Your task to perform on an android device: Go to Wikipedia Image 0: 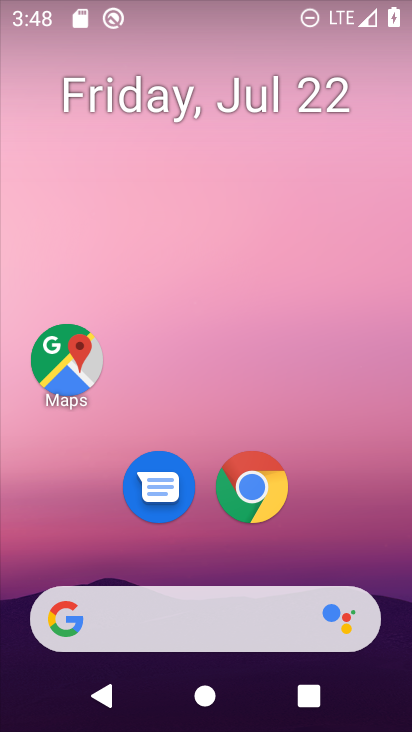
Step 0: click (264, 473)
Your task to perform on an android device: Go to Wikipedia Image 1: 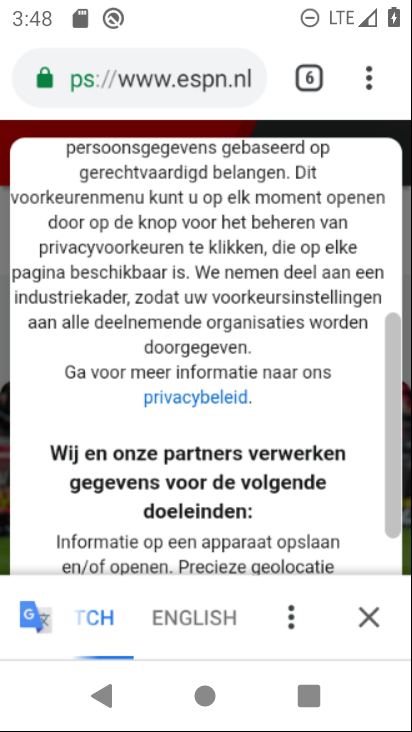
Step 1: click (307, 75)
Your task to perform on an android device: Go to Wikipedia Image 2: 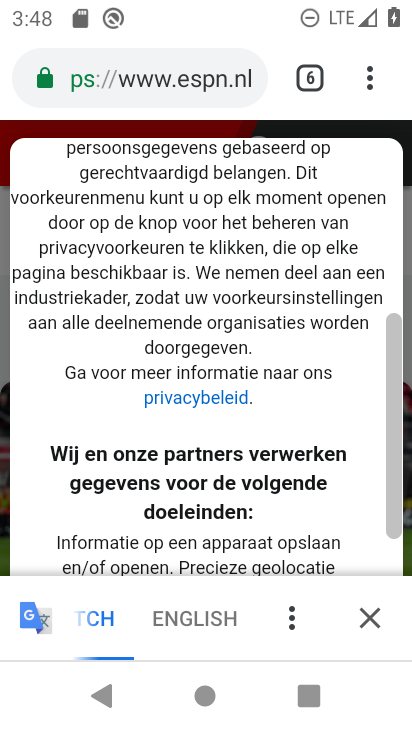
Step 2: click (313, 78)
Your task to perform on an android device: Go to Wikipedia Image 3: 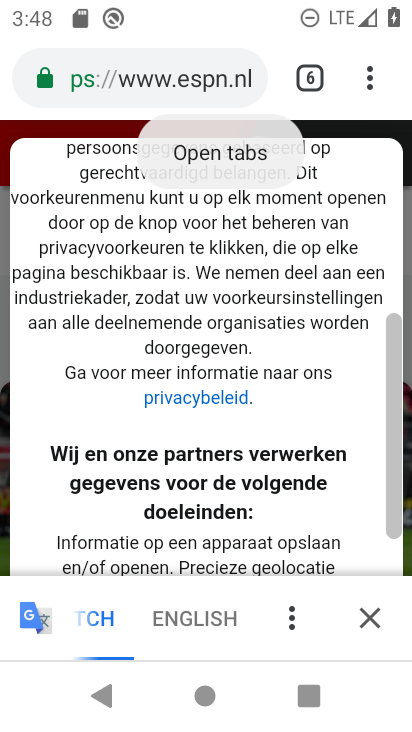
Step 3: click (315, 68)
Your task to perform on an android device: Go to Wikipedia Image 4: 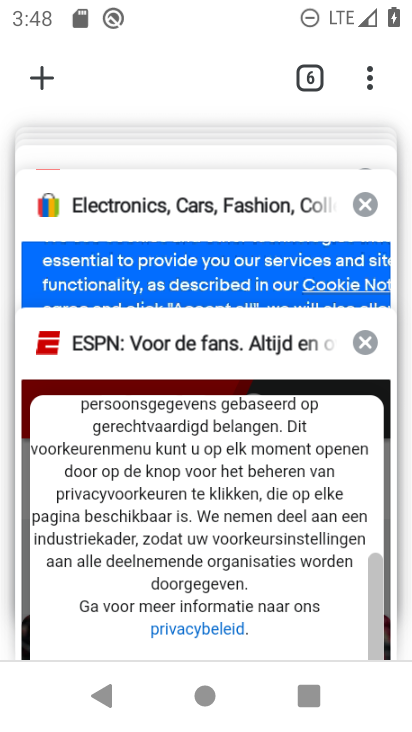
Step 4: drag from (196, 167) to (139, 566)
Your task to perform on an android device: Go to Wikipedia Image 5: 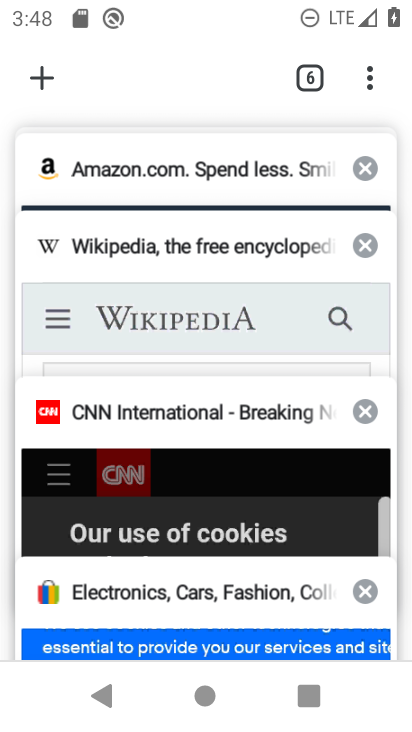
Step 5: click (127, 253)
Your task to perform on an android device: Go to Wikipedia Image 6: 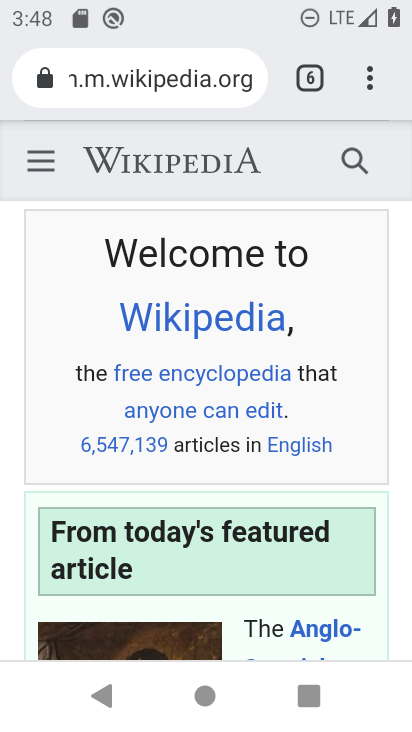
Step 6: task complete